Your task to perform on an android device: Show me recent news Image 0: 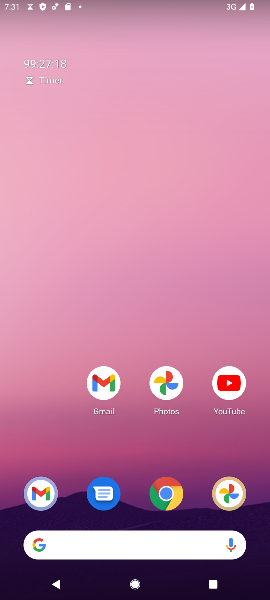
Step 0: drag from (136, 500) to (132, 48)
Your task to perform on an android device: Show me recent news Image 1: 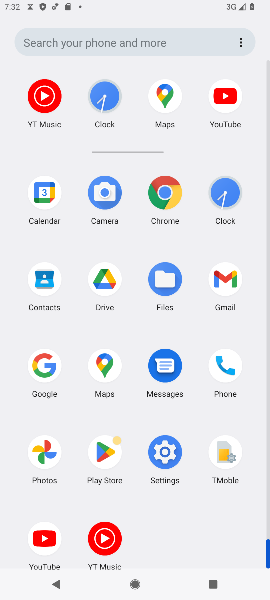
Step 1: click (168, 189)
Your task to perform on an android device: Show me recent news Image 2: 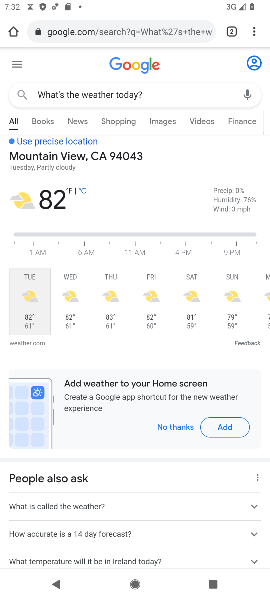
Step 2: click (255, 27)
Your task to perform on an android device: Show me recent news Image 3: 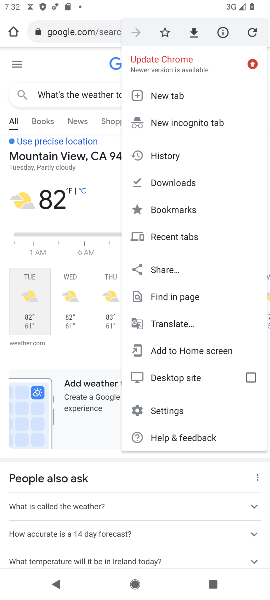
Step 3: click (164, 89)
Your task to perform on an android device: Show me recent news Image 4: 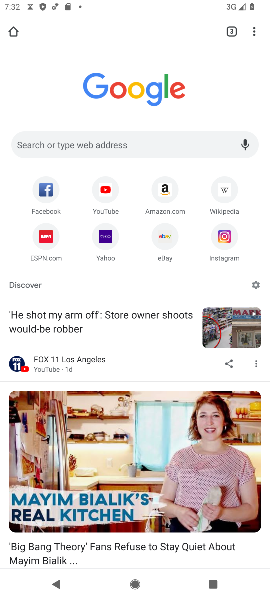
Step 4: click (170, 140)
Your task to perform on an android device: Show me recent news Image 5: 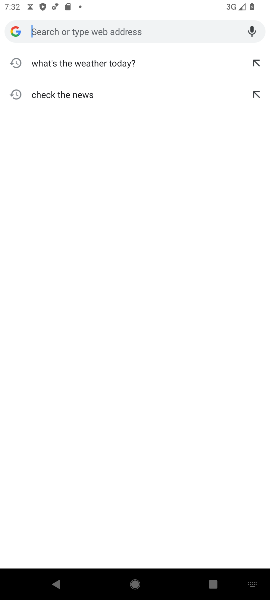
Step 5: type "Show me recent news "
Your task to perform on an android device: Show me recent news Image 6: 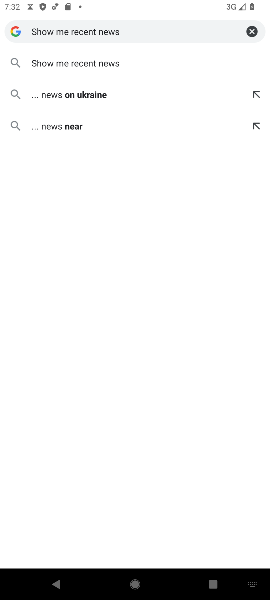
Step 6: click (85, 55)
Your task to perform on an android device: Show me recent news Image 7: 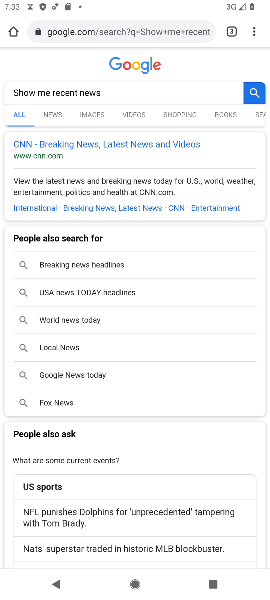
Step 7: task complete